Your task to perform on an android device: Open Google Chrome and click the shortcut for Amazon.com Image 0: 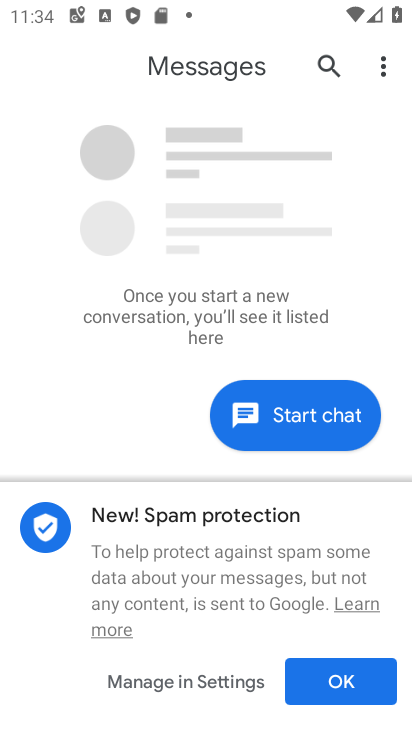
Step 0: press home button
Your task to perform on an android device: Open Google Chrome and click the shortcut for Amazon.com Image 1: 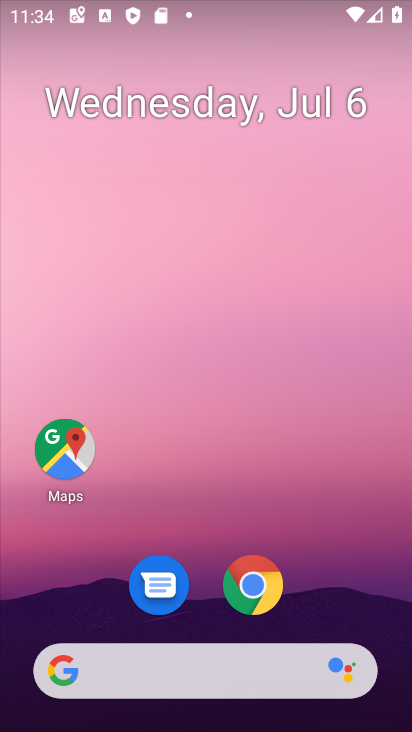
Step 1: click (250, 579)
Your task to perform on an android device: Open Google Chrome and click the shortcut for Amazon.com Image 2: 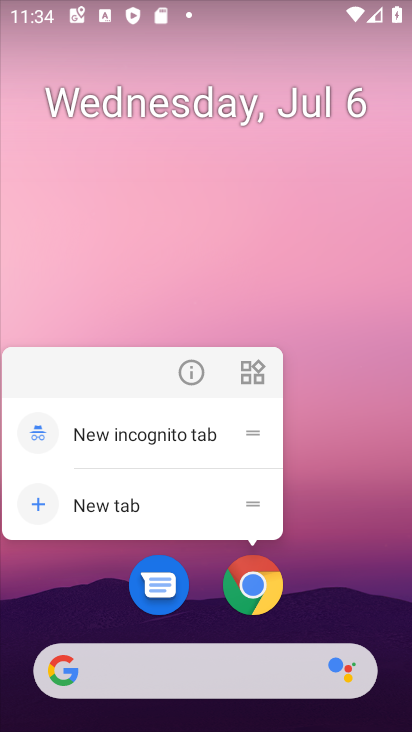
Step 2: click (250, 577)
Your task to perform on an android device: Open Google Chrome and click the shortcut for Amazon.com Image 3: 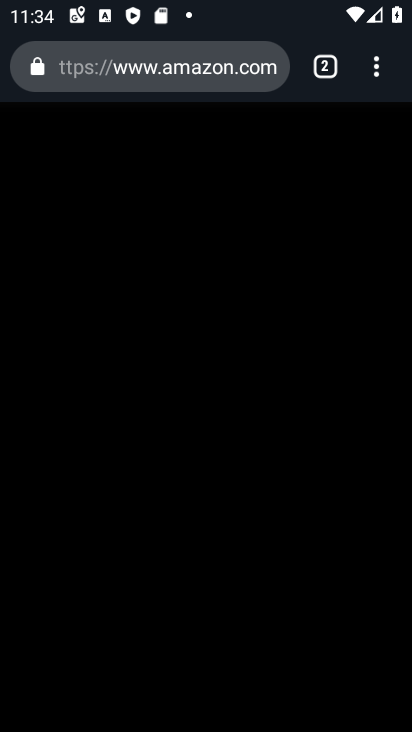
Step 3: click (373, 63)
Your task to perform on an android device: Open Google Chrome and click the shortcut for Amazon.com Image 4: 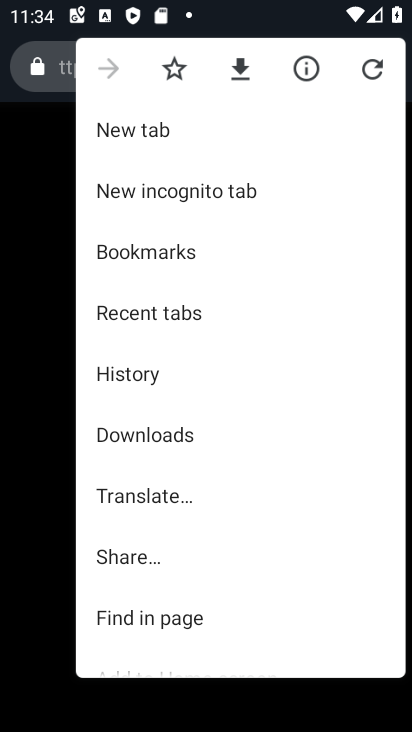
Step 4: click (286, 123)
Your task to perform on an android device: Open Google Chrome and click the shortcut for Amazon.com Image 5: 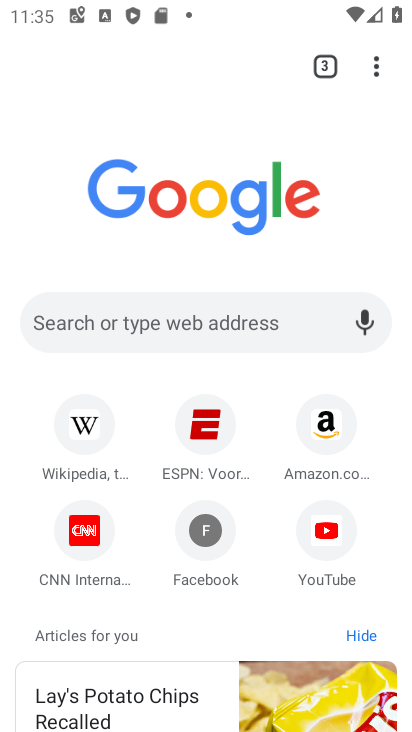
Step 5: click (321, 413)
Your task to perform on an android device: Open Google Chrome and click the shortcut for Amazon.com Image 6: 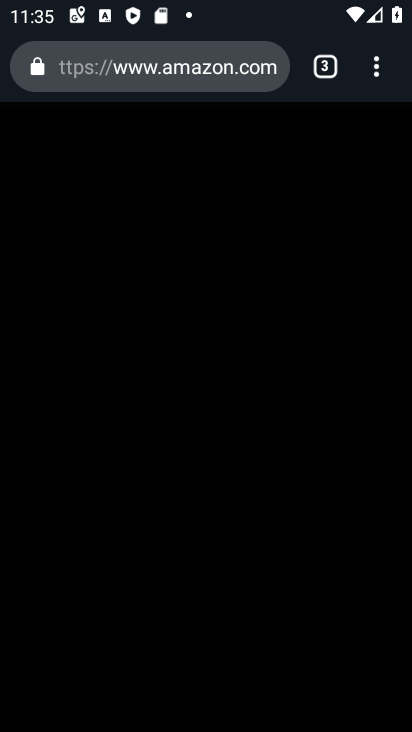
Step 6: drag from (193, 563) to (189, 153)
Your task to perform on an android device: Open Google Chrome and click the shortcut for Amazon.com Image 7: 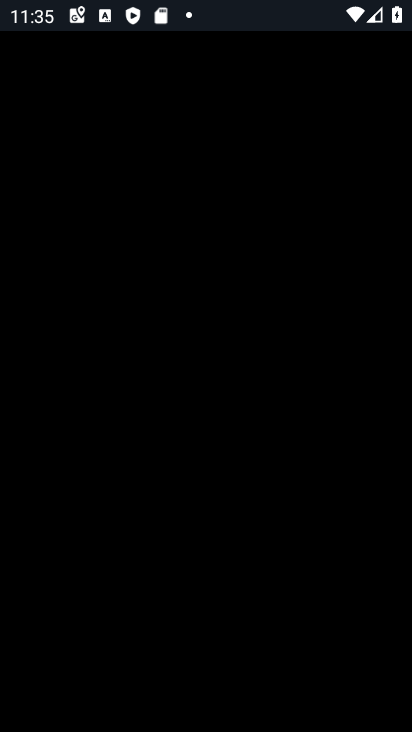
Step 7: drag from (208, 145) to (269, 571)
Your task to perform on an android device: Open Google Chrome and click the shortcut for Amazon.com Image 8: 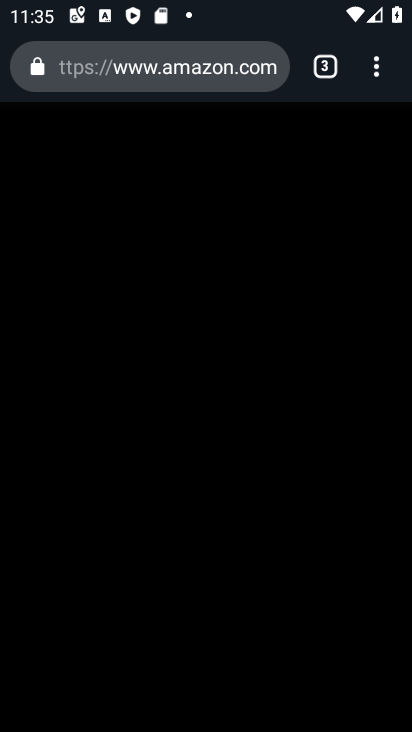
Step 8: click (377, 68)
Your task to perform on an android device: Open Google Chrome and click the shortcut for Amazon.com Image 9: 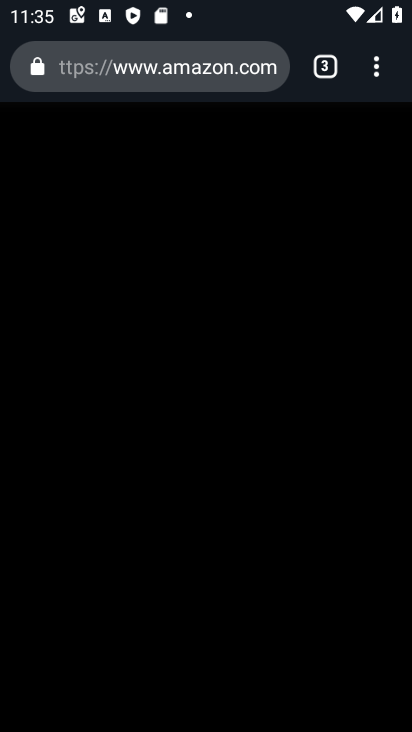
Step 9: task complete